Your task to perform on an android device: change keyboard looks Image 0: 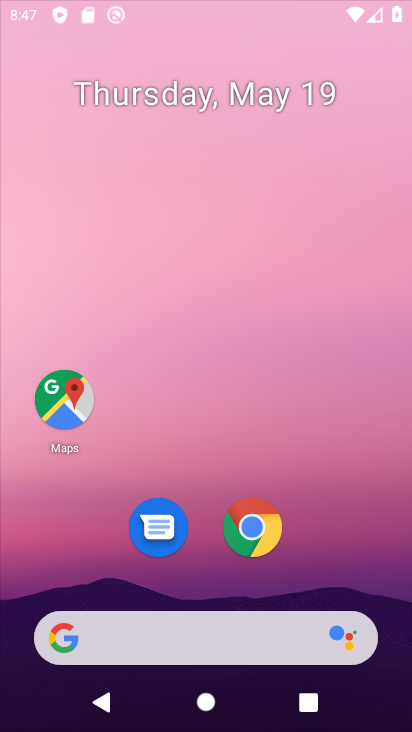
Step 0: click (322, 9)
Your task to perform on an android device: change keyboard looks Image 1: 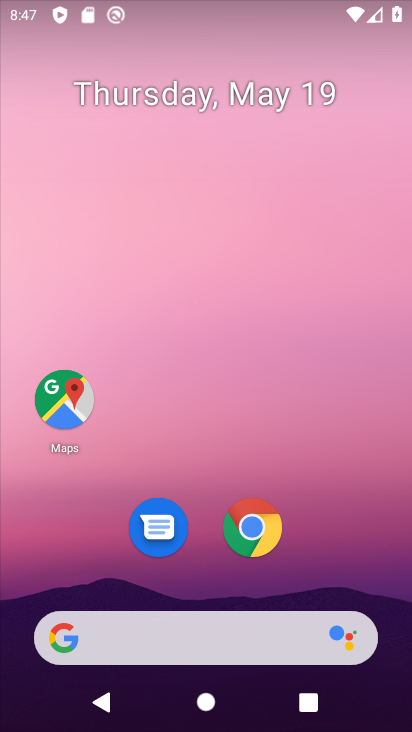
Step 1: drag from (218, 578) to (284, 213)
Your task to perform on an android device: change keyboard looks Image 2: 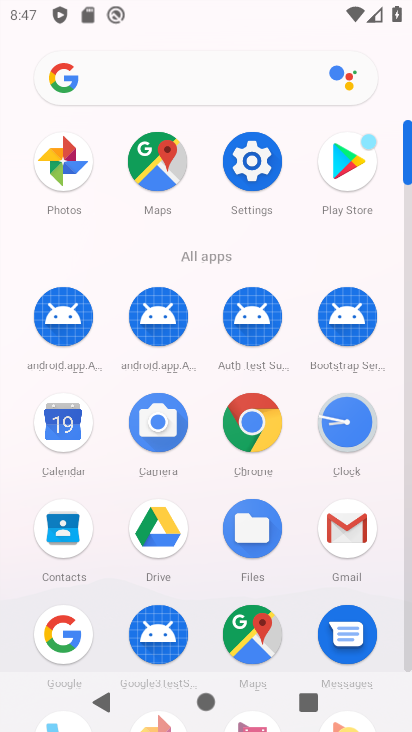
Step 2: click (248, 169)
Your task to perform on an android device: change keyboard looks Image 3: 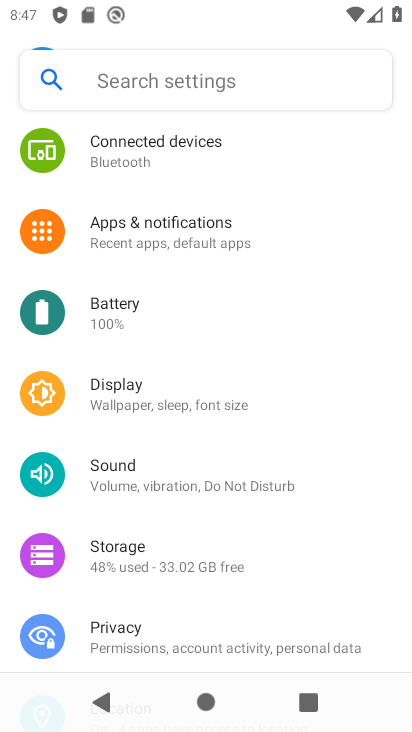
Step 3: drag from (185, 586) to (300, 58)
Your task to perform on an android device: change keyboard looks Image 4: 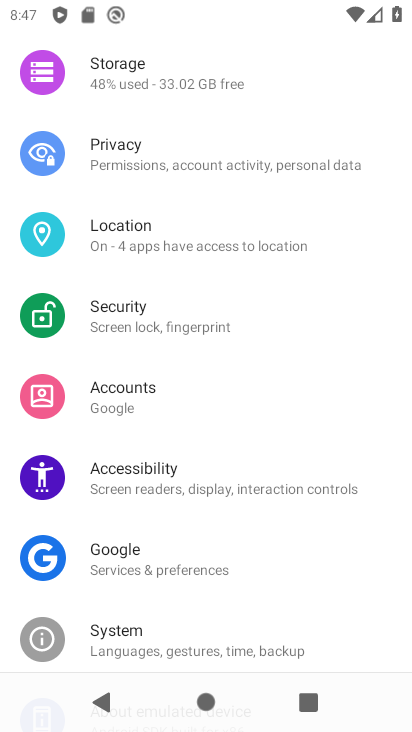
Step 4: drag from (201, 609) to (250, 218)
Your task to perform on an android device: change keyboard looks Image 5: 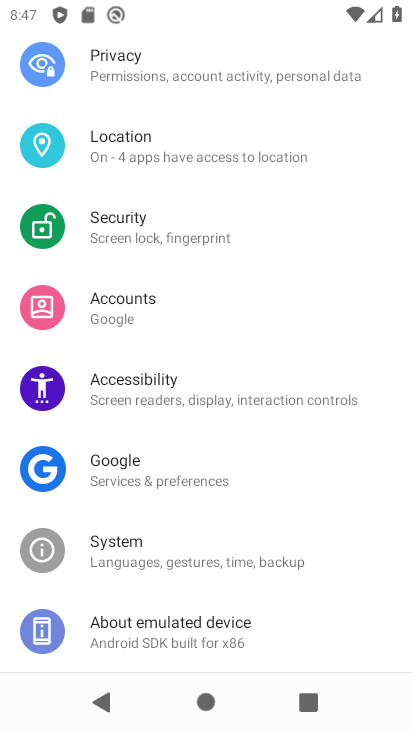
Step 5: drag from (150, 622) to (226, 166)
Your task to perform on an android device: change keyboard looks Image 6: 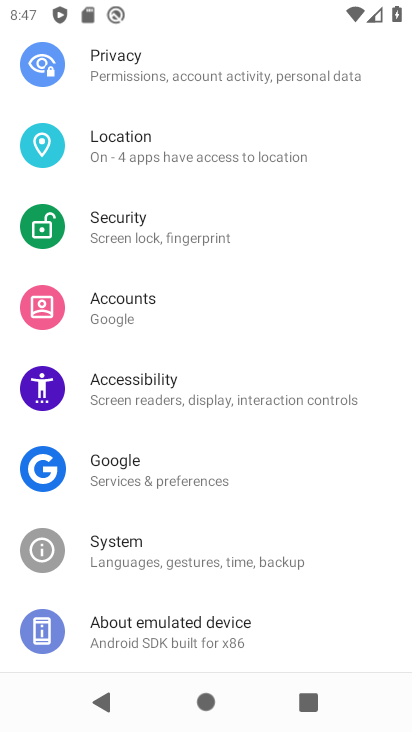
Step 6: click (142, 558)
Your task to perform on an android device: change keyboard looks Image 7: 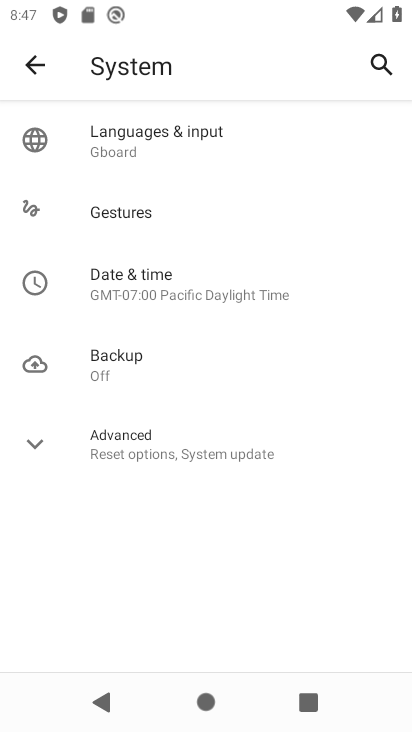
Step 7: click (130, 157)
Your task to perform on an android device: change keyboard looks Image 8: 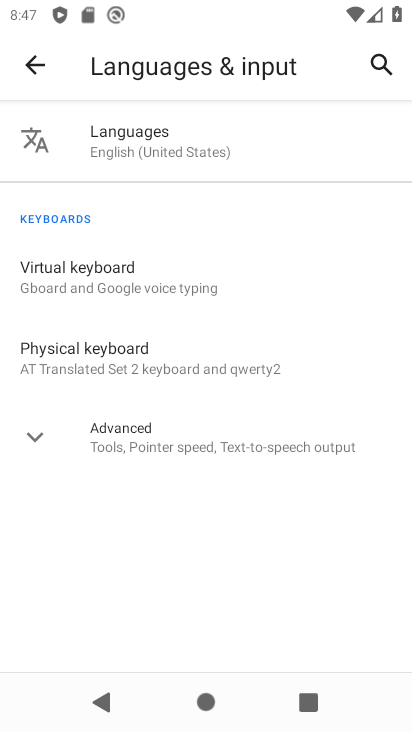
Step 8: click (129, 274)
Your task to perform on an android device: change keyboard looks Image 9: 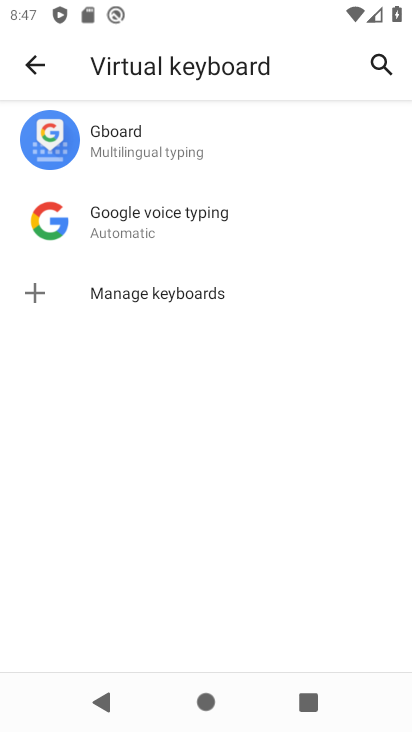
Step 9: drag from (218, 176) to (268, 118)
Your task to perform on an android device: change keyboard looks Image 10: 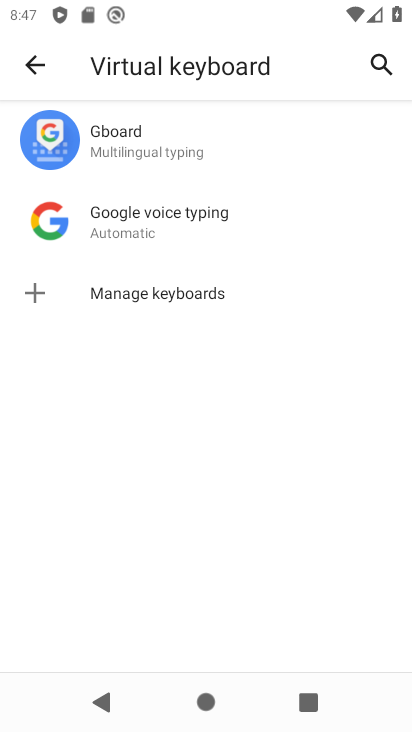
Step 10: click (237, 122)
Your task to perform on an android device: change keyboard looks Image 11: 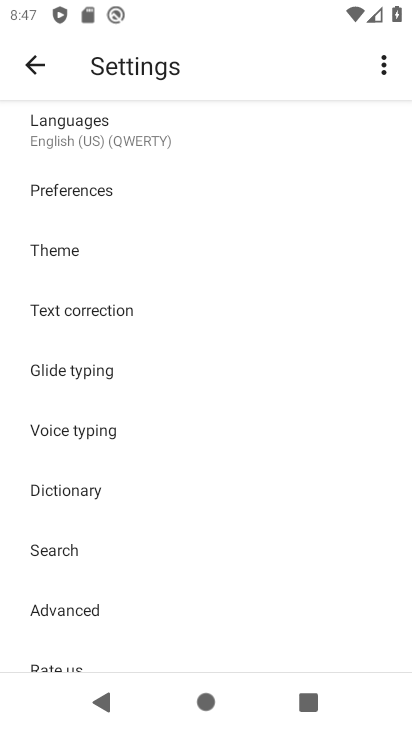
Step 11: click (141, 251)
Your task to perform on an android device: change keyboard looks Image 12: 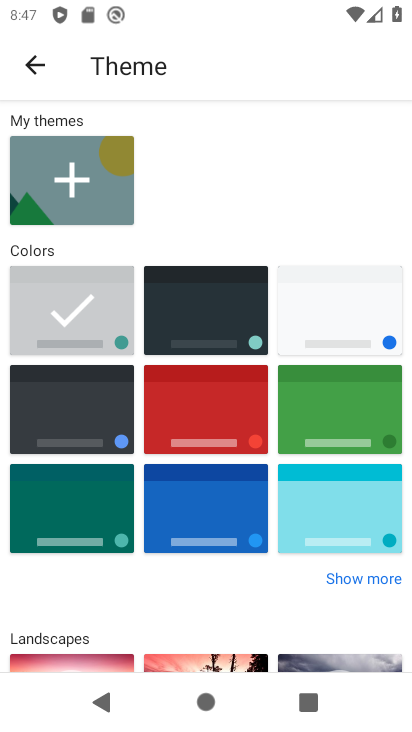
Step 12: click (320, 316)
Your task to perform on an android device: change keyboard looks Image 13: 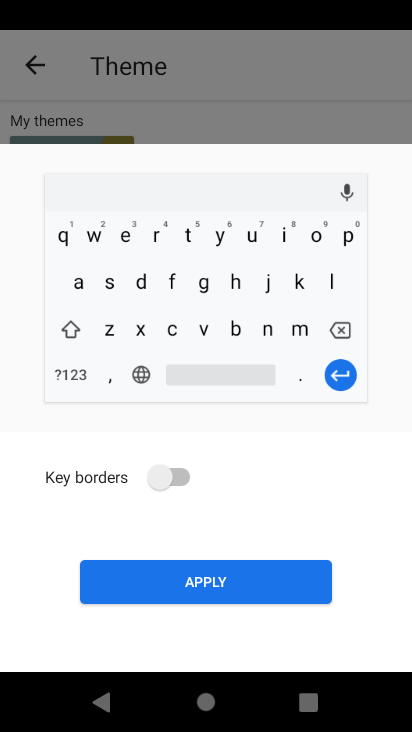
Step 13: click (198, 585)
Your task to perform on an android device: change keyboard looks Image 14: 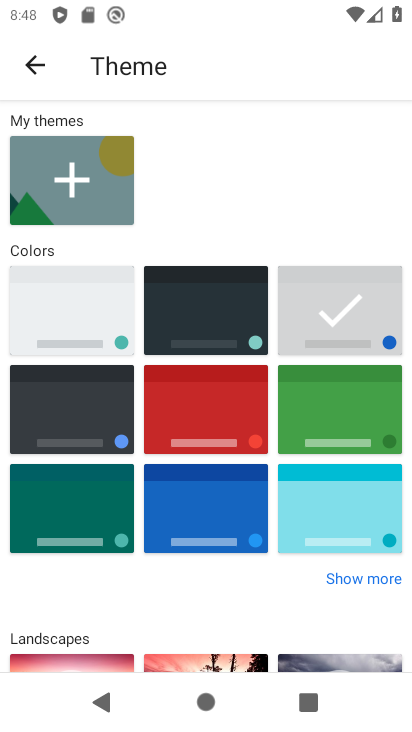
Step 14: task complete